Your task to perform on an android device: turn notification dots off Image 0: 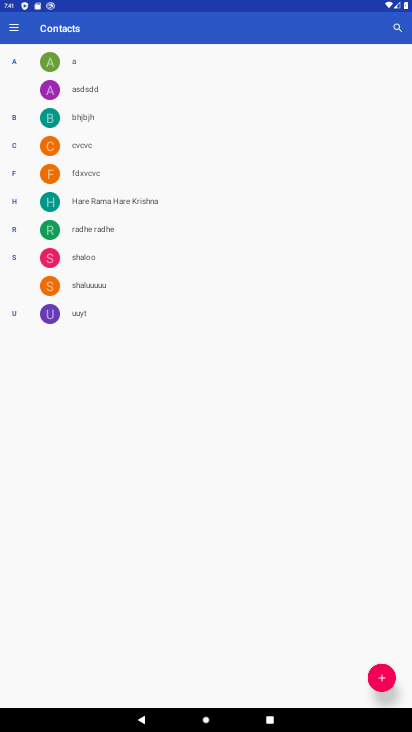
Step 0: press home button
Your task to perform on an android device: turn notification dots off Image 1: 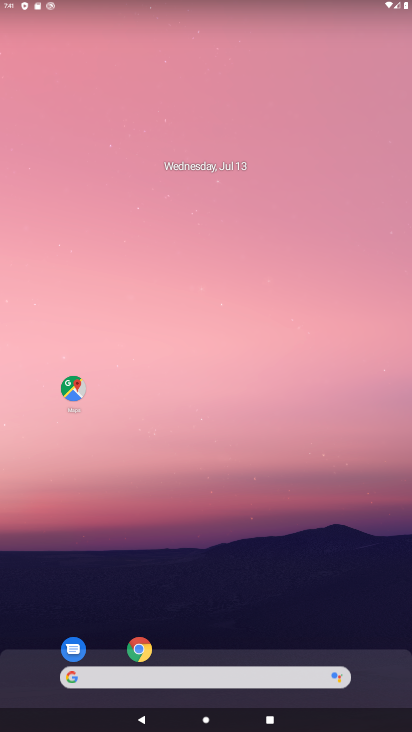
Step 1: drag from (240, 314) to (211, 39)
Your task to perform on an android device: turn notification dots off Image 2: 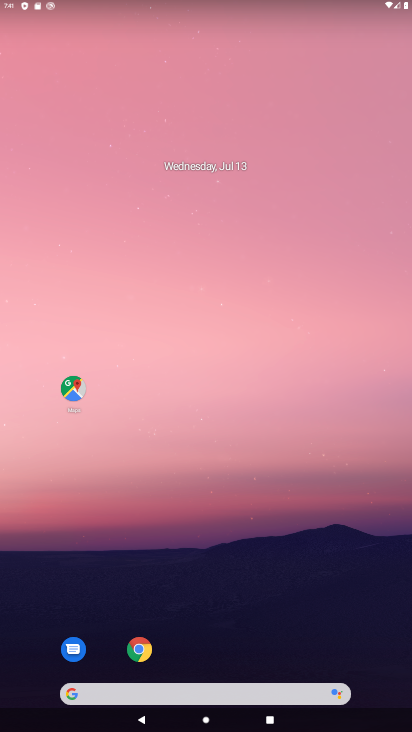
Step 2: drag from (354, 575) to (255, 2)
Your task to perform on an android device: turn notification dots off Image 3: 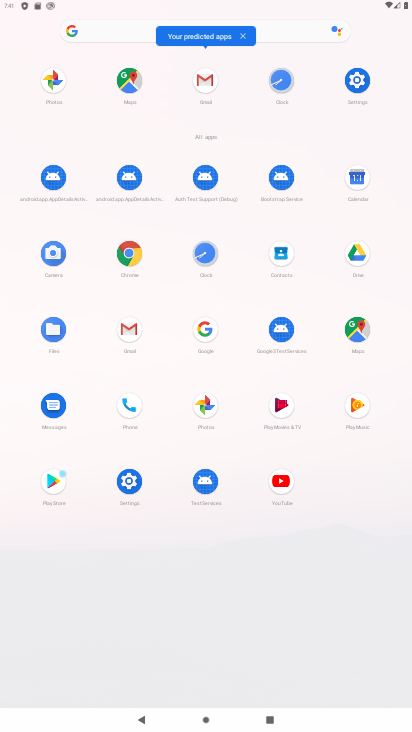
Step 3: click (366, 83)
Your task to perform on an android device: turn notification dots off Image 4: 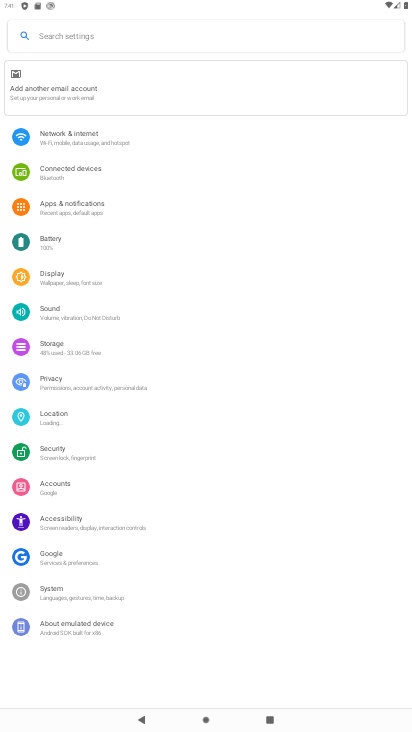
Step 4: click (44, 208)
Your task to perform on an android device: turn notification dots off Image 5: 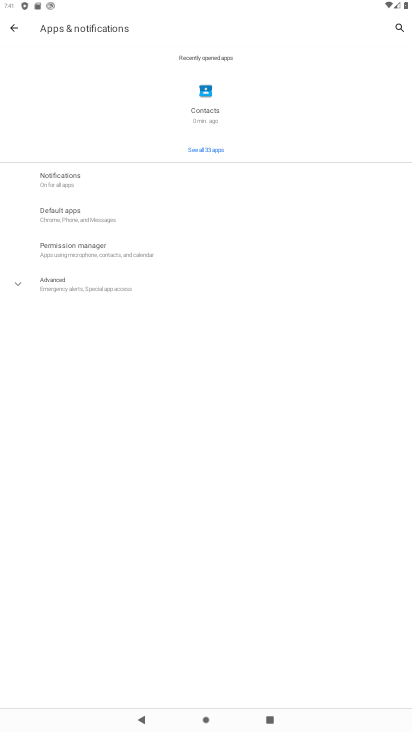
Step 5: click (57, 182)
Your task to perform on an android device: turn notification dots off Image 6: 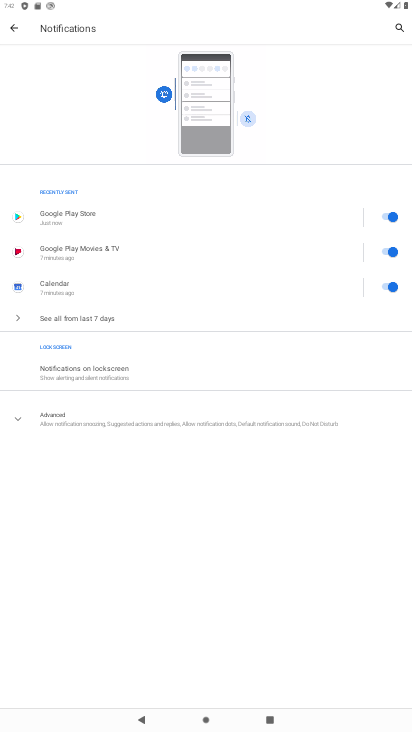
Step 6: click (271, 413)
Your task to perform on an android device: turn notification dots off Image 7: 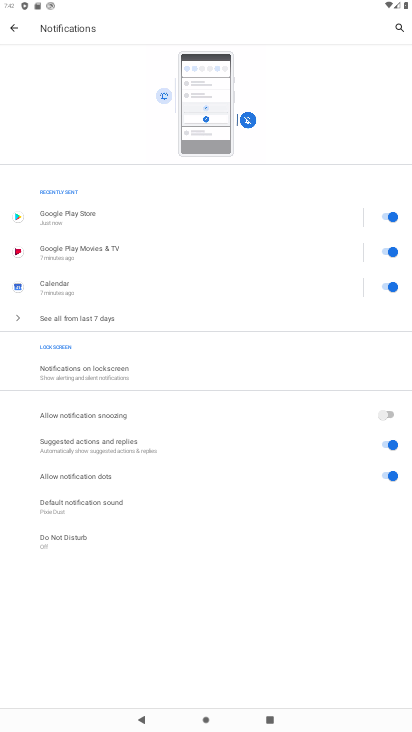
Step 7: click (387, 474)
Your task to perform on an android device: turn notification dots off Image 8: 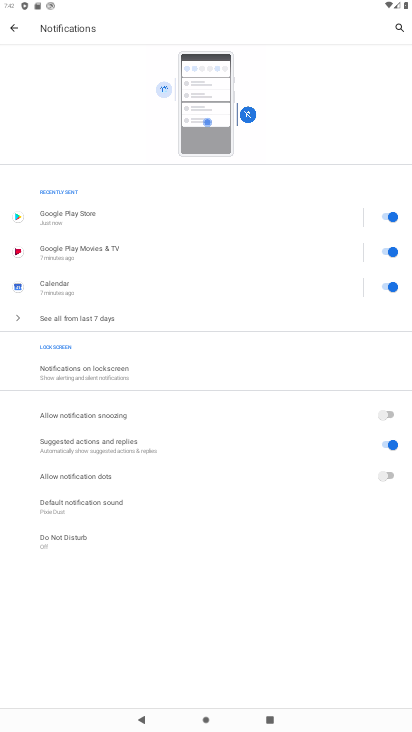
Step 8: task complete